Your task to perform on an android device: all mails in gmail Image 0: 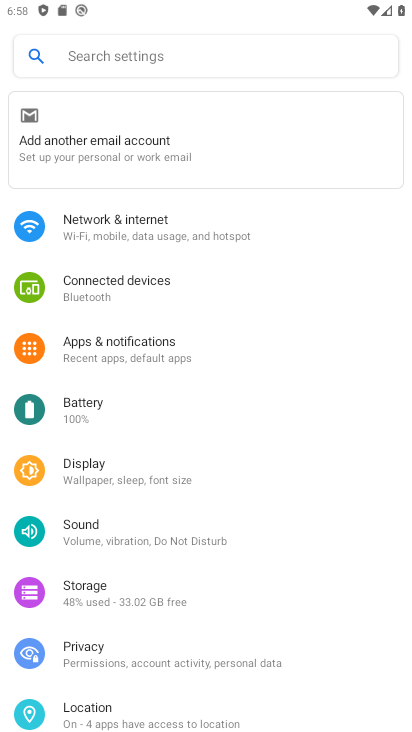
Step 0: press home button
Your task to perform on an android device: all mails in gmail Image 1: 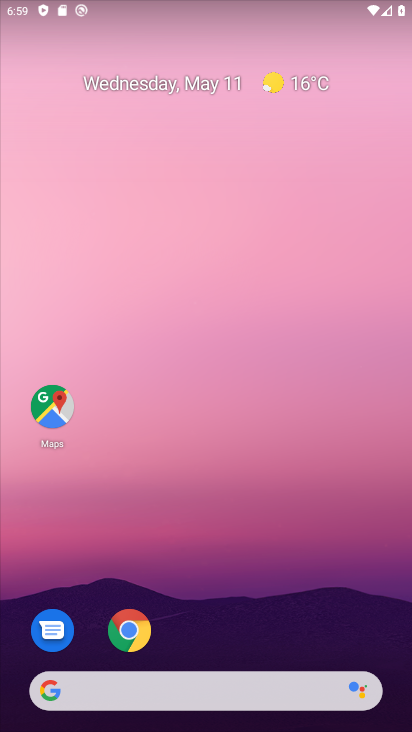
Step 1: drag from (322, 558) to (343, 12)
Your task to perform on an android device: all mails in gmail Image 2: 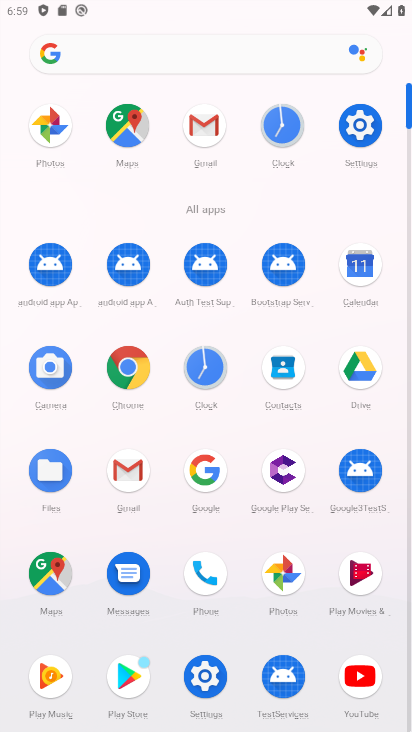
Step 2: click (195, 136)
Your task to perform on an android device: all mails in gmail Image 3: 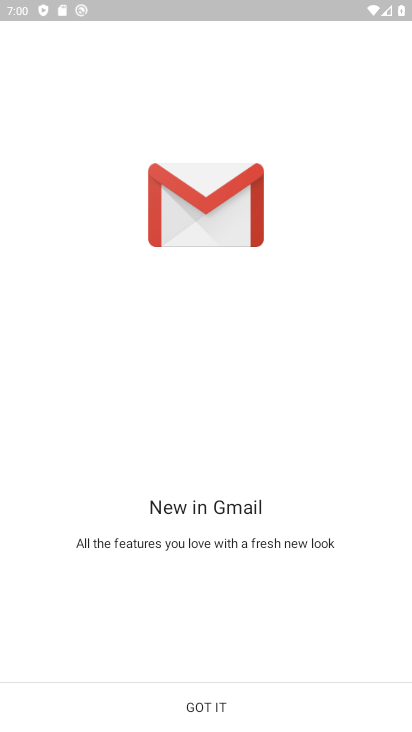
Step 3: click (191, 715)
Your task to perform on an android device: all mails in gmail Image 4: 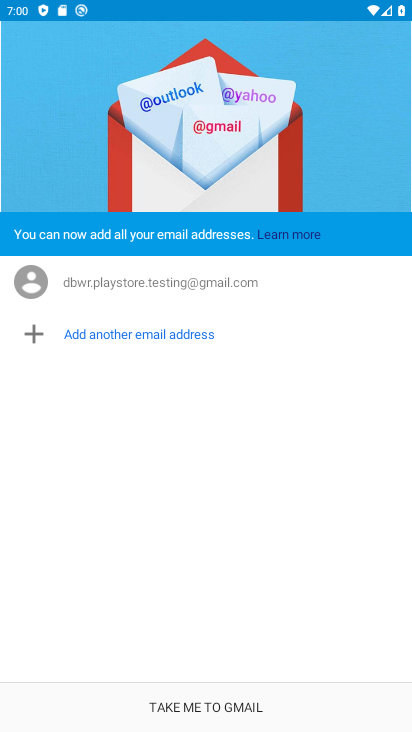
Step 4: click (188, 704)
Your task to perform on an android device: all mails in gmail Image 5: 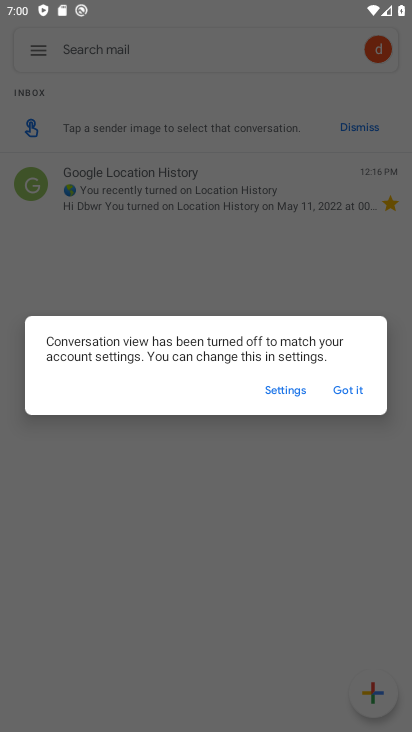
Step 5: click (348, 393)
Your task to perform on an android device: all mails in gmail Image 6: 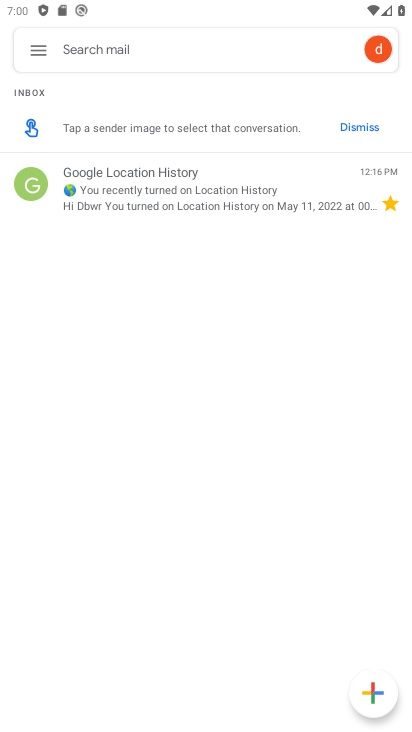
Step 6: click (33, 60)
Your task to perform on an android device: all mails in gmail Image 7: 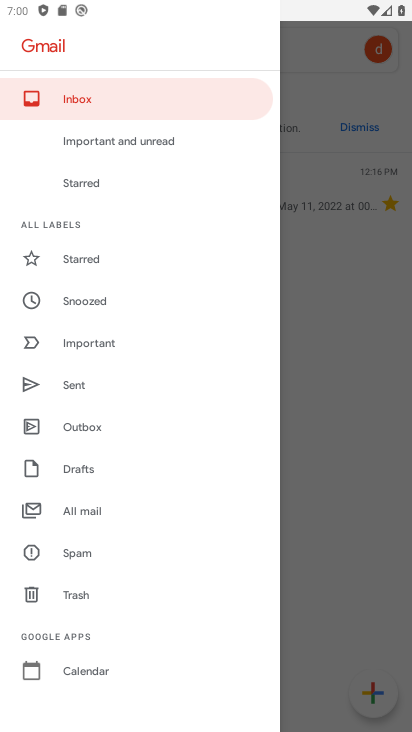
Step 7: click (80, 513)
Your task to perform on an android device: all mails in gmail Image 8: 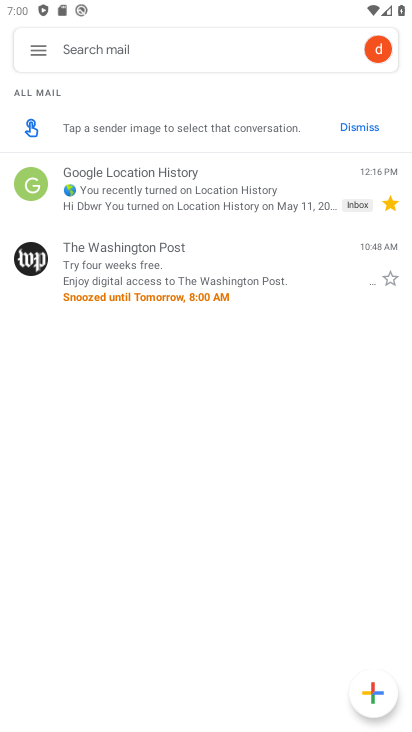
Step 8: task complete